Your task to perform on an android device: Open internet settings Image 0: 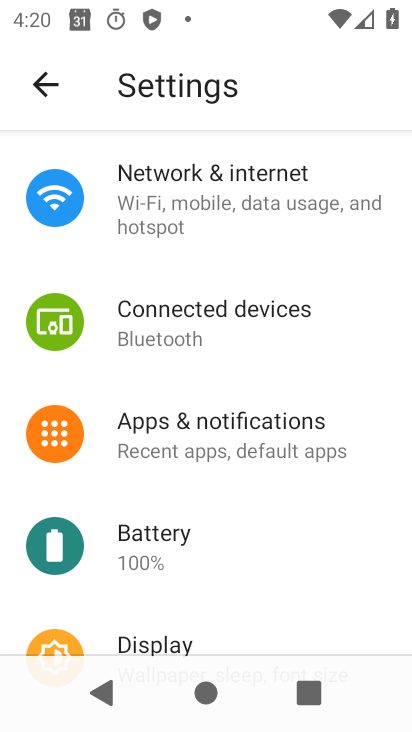
Step 0: click (279, 208)
Your task to perform on an android device: Open internet settings Image 1: 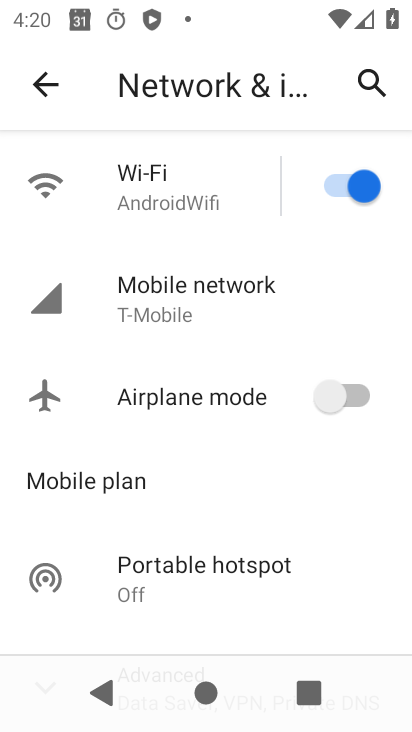
Step 1: task complete